Your task to perform on an android device: delete browsing data in the chrome app Image 0: 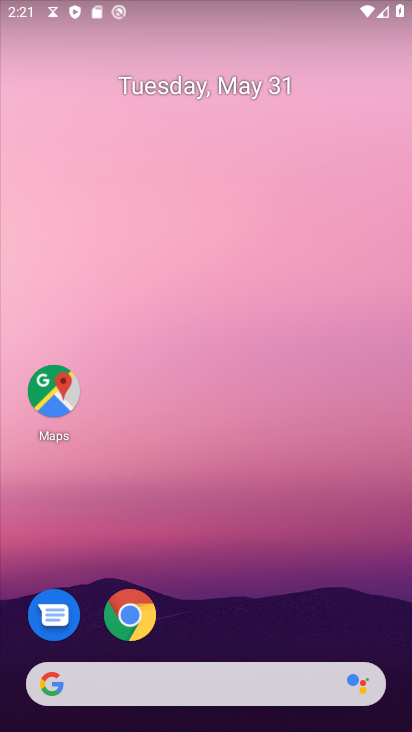
Step 0: drag from (229, 709) to (221, 83)
Your task to perform on an android device: delete browsing data in the chrome app Image 1: 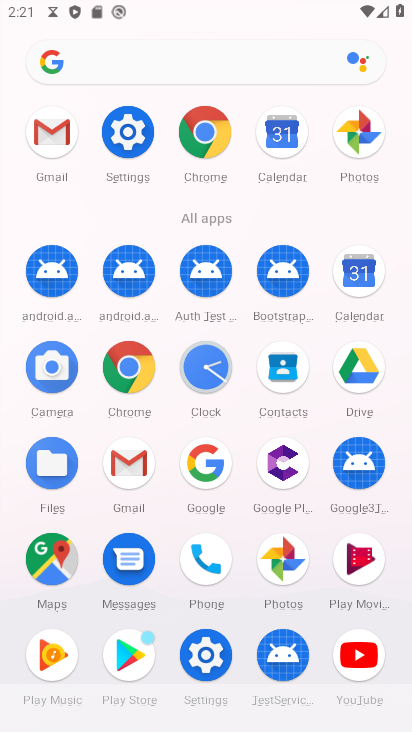
Step 1: click (205, 125)
Your task to perform on an android device: delete browsing data in the chrome app Image 2: 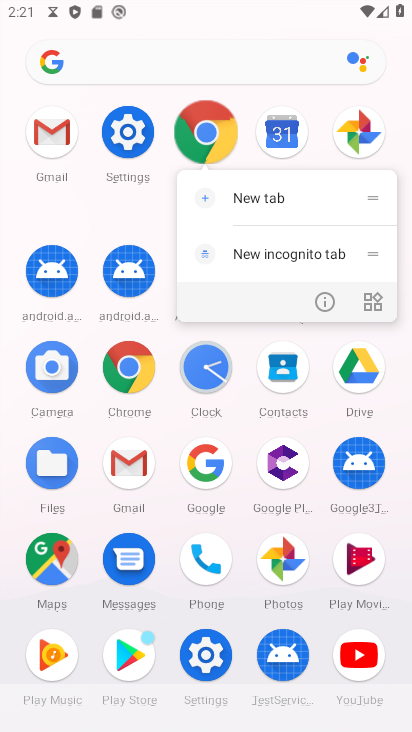
Step 2: click (205, 125)
Your task to perform on an android device: delete browsing data in the chrome app Image 3: 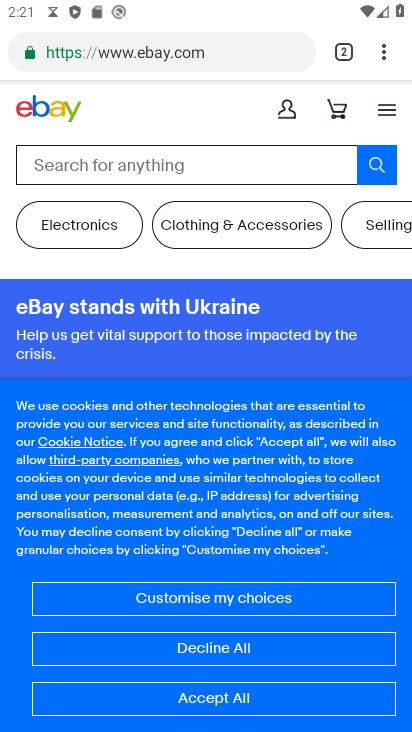
Step 3: drag from (379, 49) to (188, 345)
Your task to perform on an android device: delete browsing data in the chrome app Image 4: 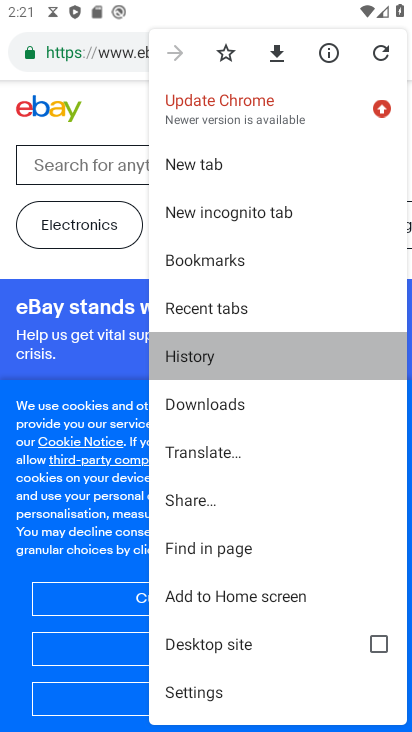
Step 4: click (191, 346)
Your task to perform on an android device: delete browsing data in the chrome app Image 5: 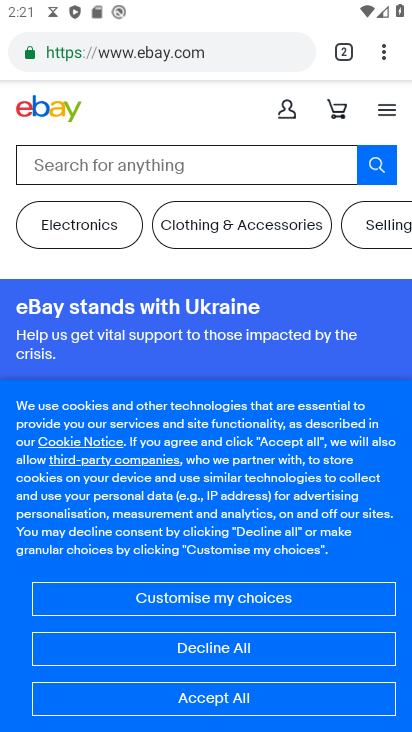
Step 5: click (191, 346)
Your task to perform on an android device: delete browsing data in the chrome app Image 6: 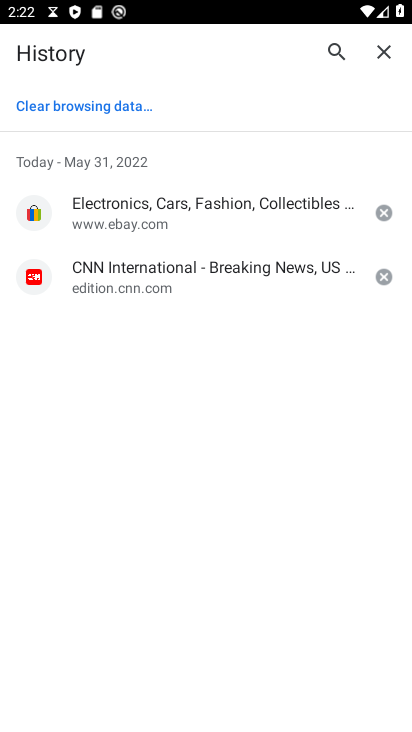
Step 6: click (94, 114)
Your task to perform on an android device: delete browsing data in the chrome app Image 7: 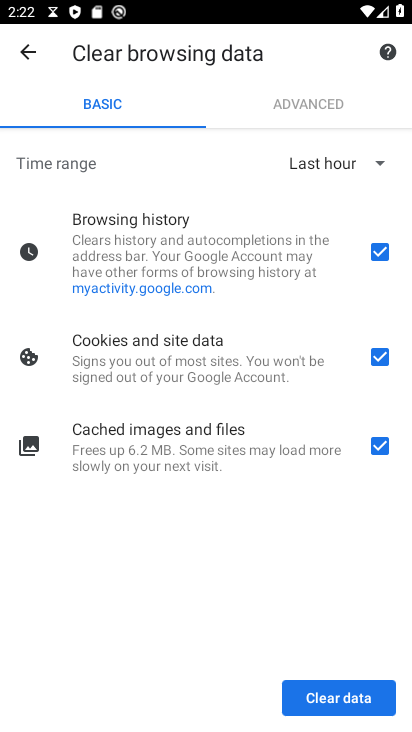
Step 7: click (360, 686)
Your task to perform on an android device: delete browsing data in the chrome app Image 8: 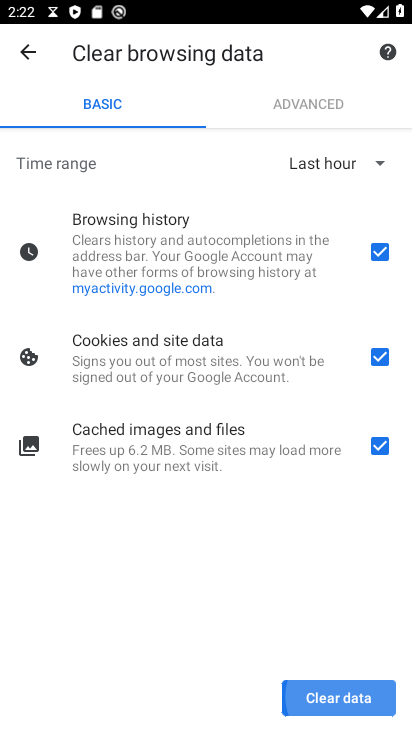
Step 8: click (360, 687)
Your task to perform on an android device: delete browsing data in the chrome app Image 9: 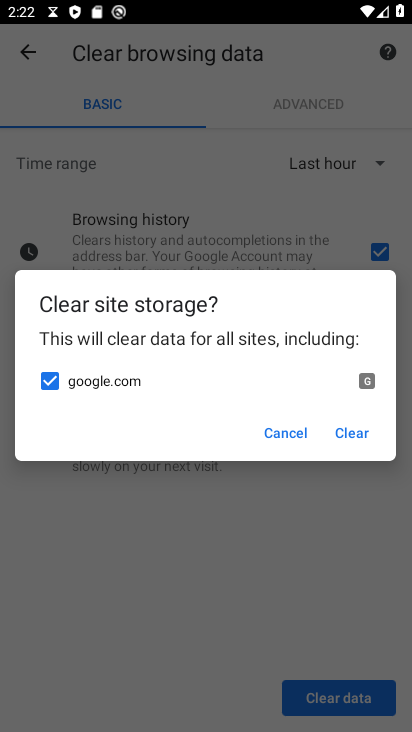
Step 9: click (350, 424)
Your task to perform on an android device: delete browsing data in the chrome app Image 10: 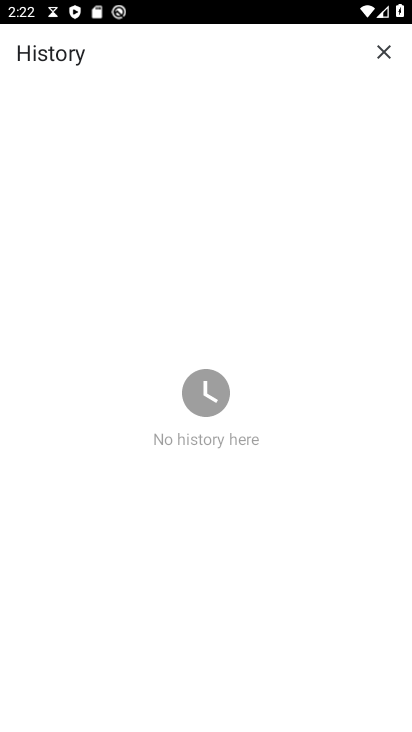
Step 10: task complete